Your task to perform on an android device: open a new tab in the chrome app Image 0: 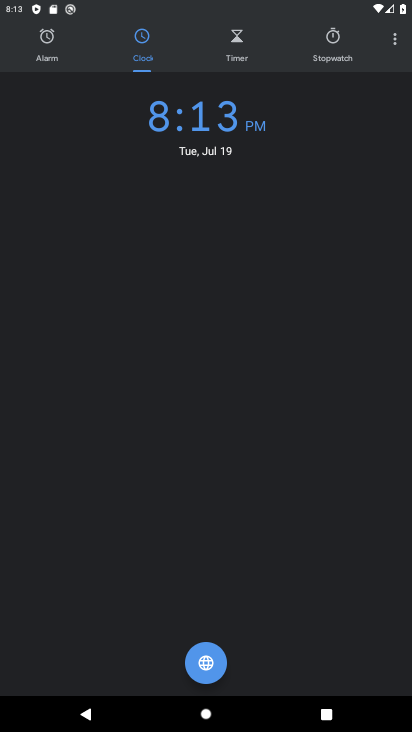
Step 0: press home button
Your task to perform on an android device: open a new tab in the chrome app Image 1: 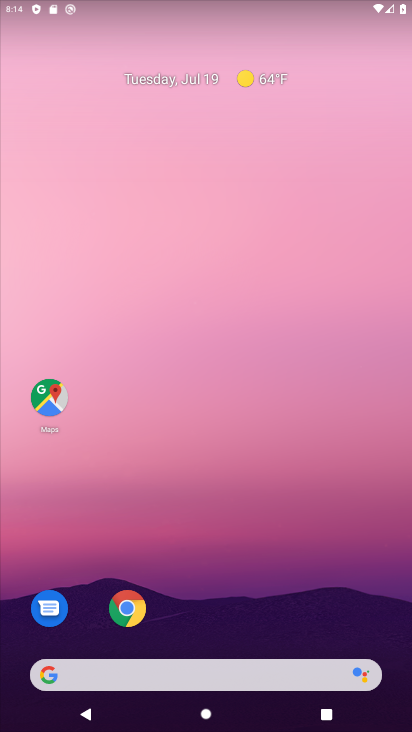
Step 1: click (134, 602)
Your task to perform on an android device: open a new tab in the chrome app Image 2: 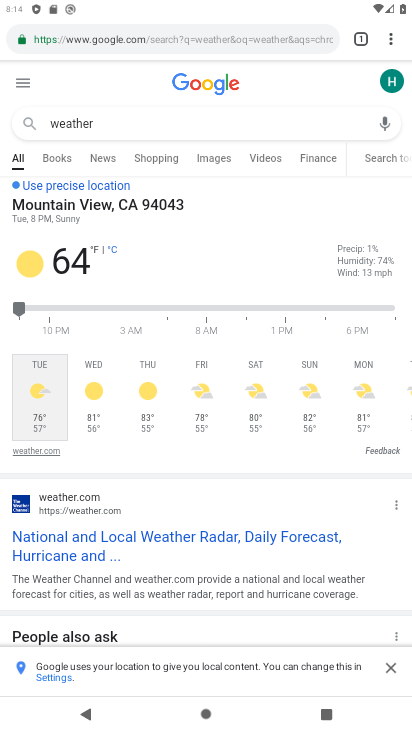
Step 2: drag from (393, 43) to (308, 72)
Your task to perform on an android device: open a new tab in the chrome app Image 3: 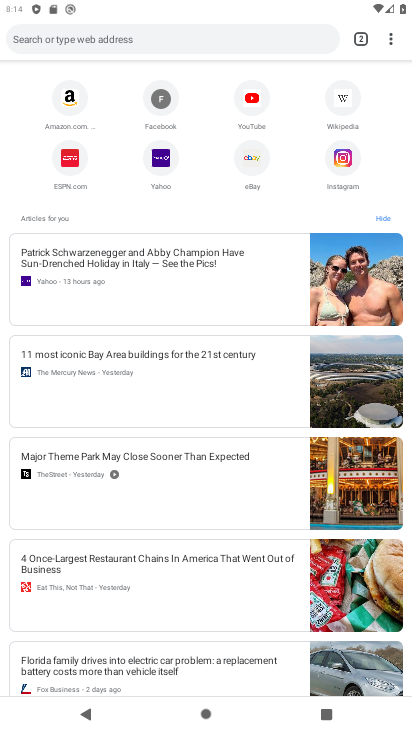
Step 3: click (308, 72)
Your task to perform on an android device: open a new tab in the chrome app Image 4: 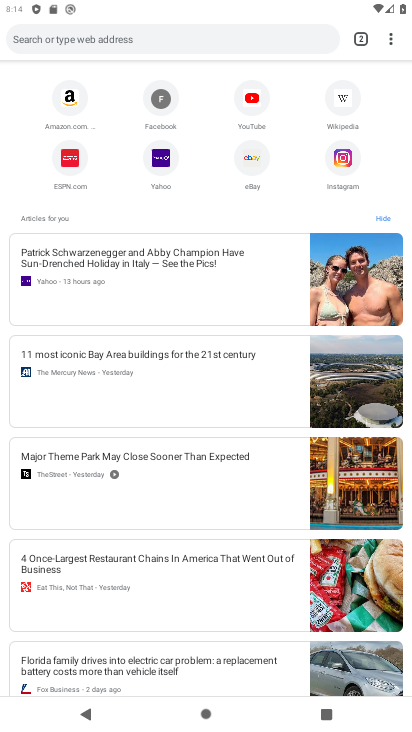
Step 4: task complete